Your task to perform on an android device: Open Google Chrome Image 0: 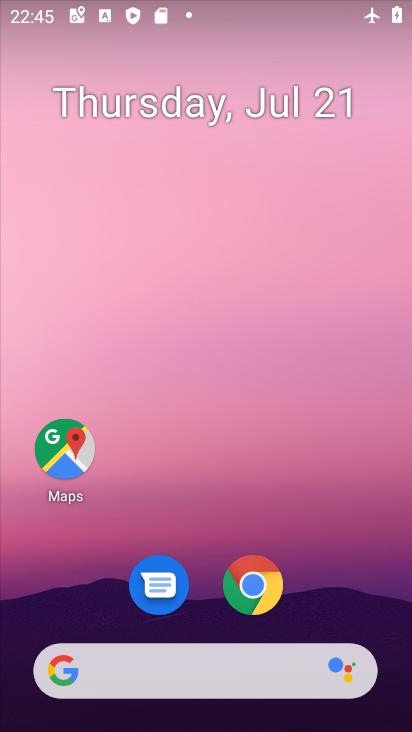
Step 0: click (270, 588)
Your task to perform on an android device: Open Google Chrome Image 1: 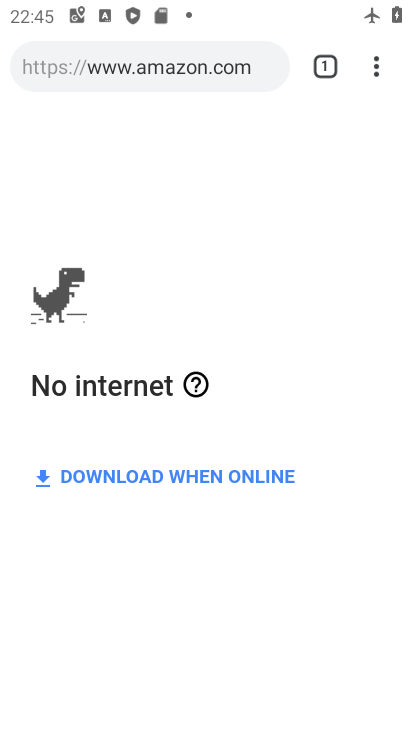
Step 1: press back button
Your task to perform on an android device: Open Google Chrome Image 2: 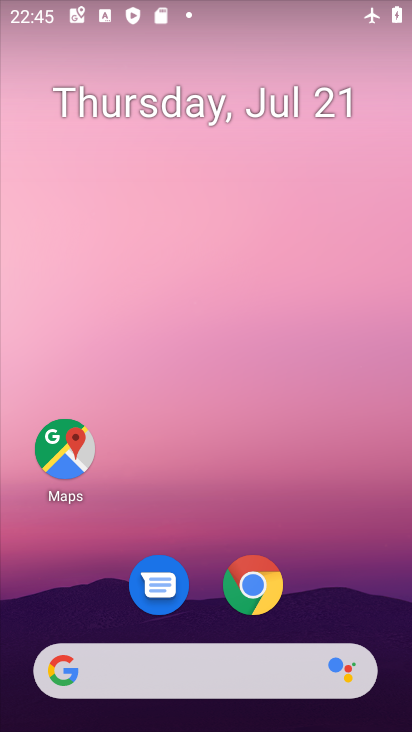
Step 2: click (262, 570)
Your task to perform on an android device: Open Google Chrome Image 3: 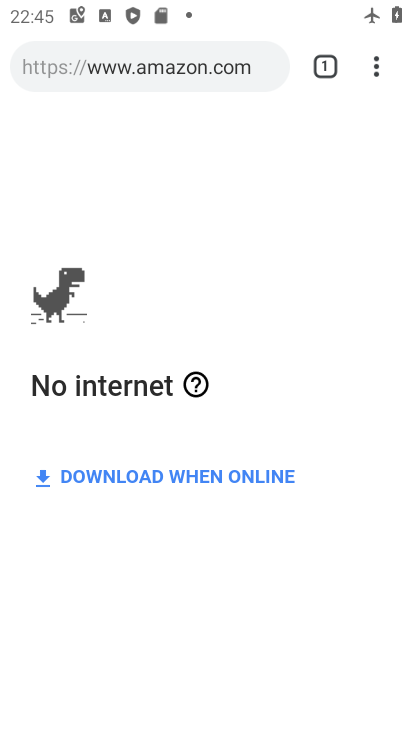
Step 3: click (376, 69)
Your task to perform on an android device: Open Google Chrome Image 4: 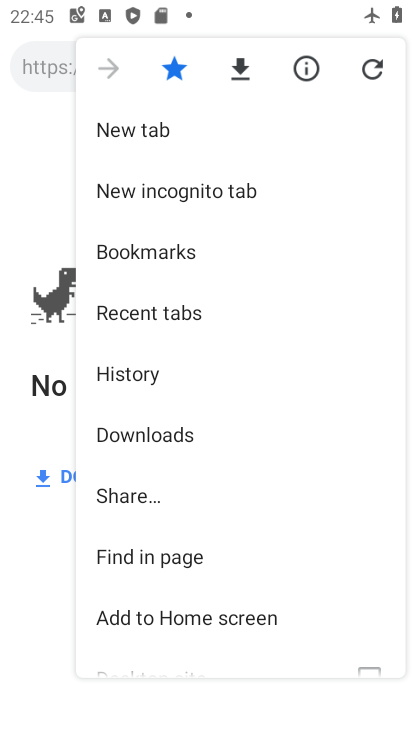
Step 4: click (241, 117)
Your task to perform on an android device: Open Google Chrome Image 5: 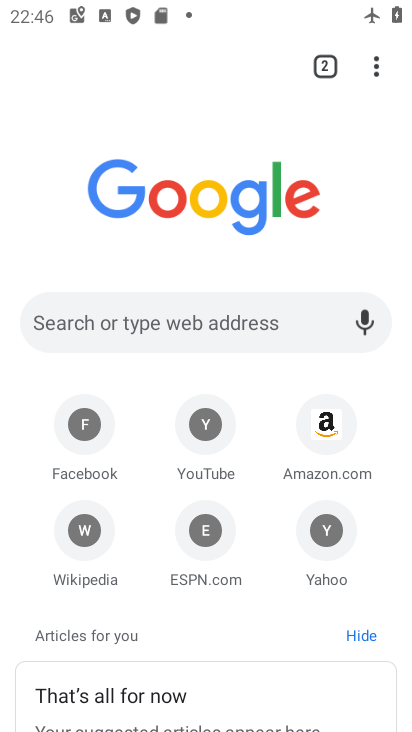
Step 5: task complete